Your task to perform on an android device: make emails show in primary in the gmail app Image 0: 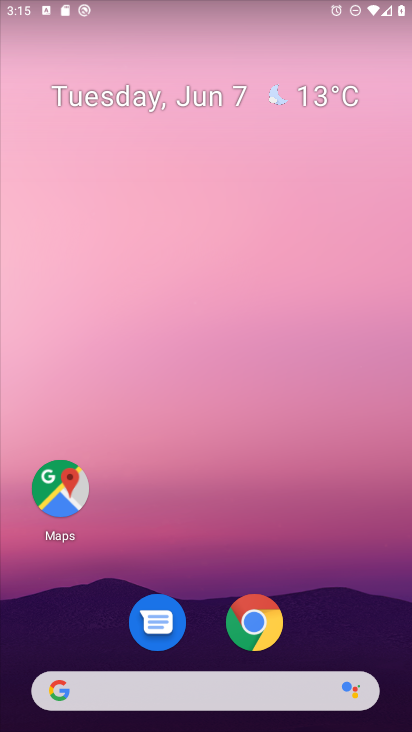
Step 0: drag from (352, 643) to (260, 129)
Your task to perform on an android device: make emails show in primary in the gmail app Image 1: 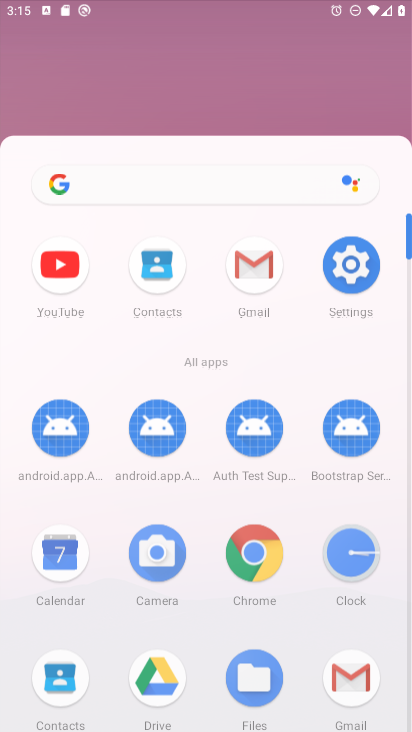
Step 1: drag from (299, 600) to (275, 20)
Your task to perform on an android device: make emails show in primary in the gmail app Image 2: 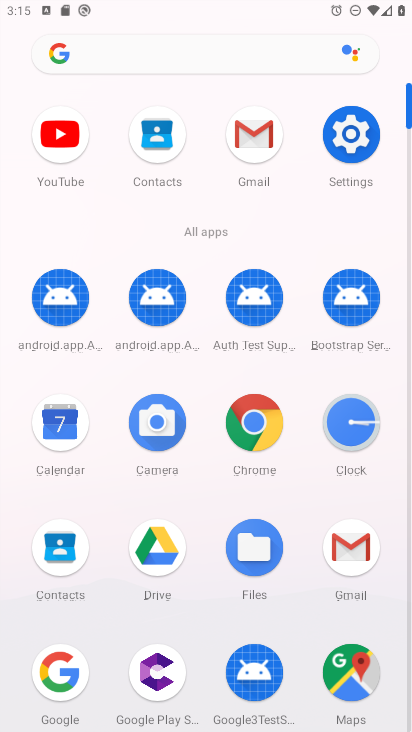
Step 2: click (257, 141)
Your task to perform on an android device: make emails show in primary in the gmail app Image 3: 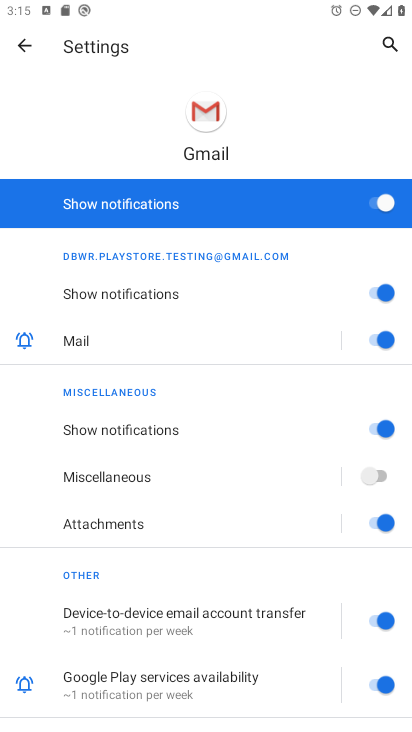
Step 3: click (23, 48)
Your task to perform on an android device: make emails show in primary in the gmail app Image 4: 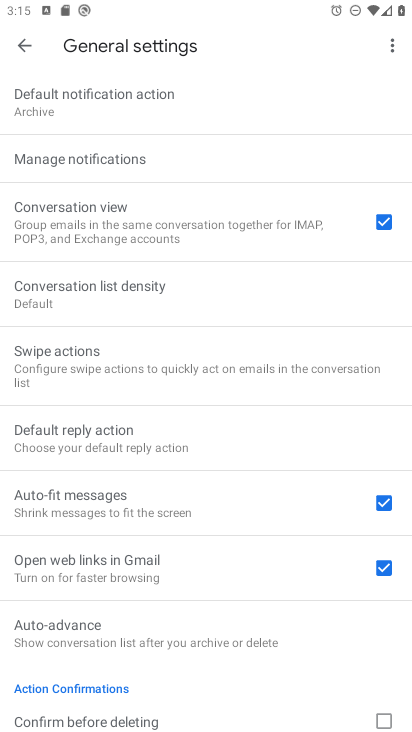
Step 4: click (29, 44)
Your task to perform on an android device: make emails show in primary in the gmail app Image 5: 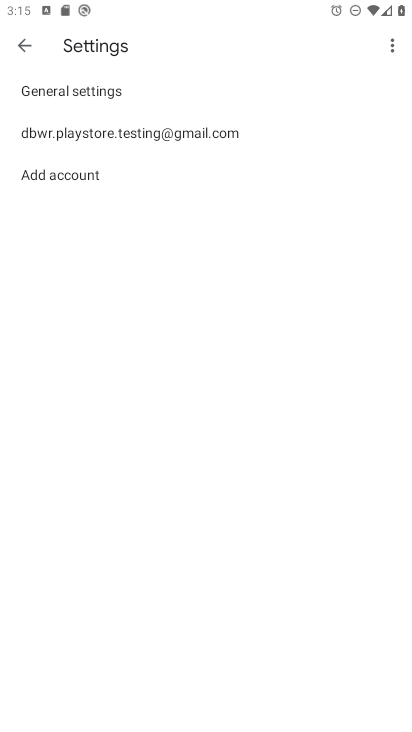
Step 5: click (71, 139)
Your task to perform on an android device: make emails show in primary in the gmail app Image 6: 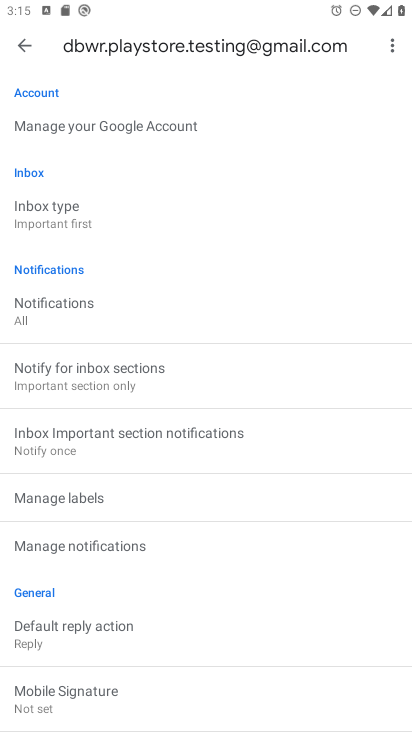
Step 6: click (75, 222)
Your task to perform on an android device: make emails show in primary in the gmail app Image 7: 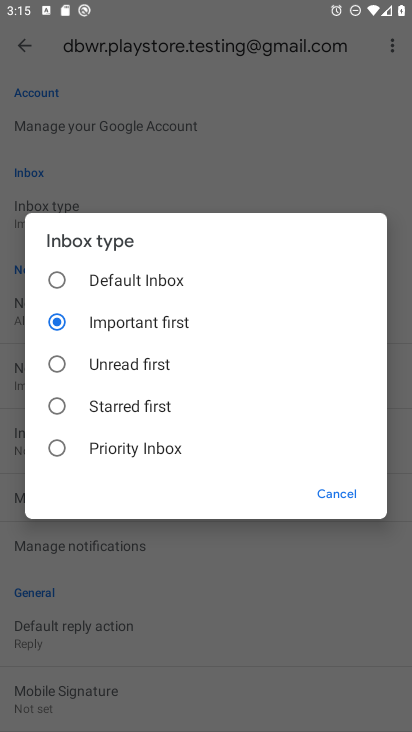
Step 7: click (59, 276)
Your task to perform on an android device: make emails show in primary in the gmail app Image 8: 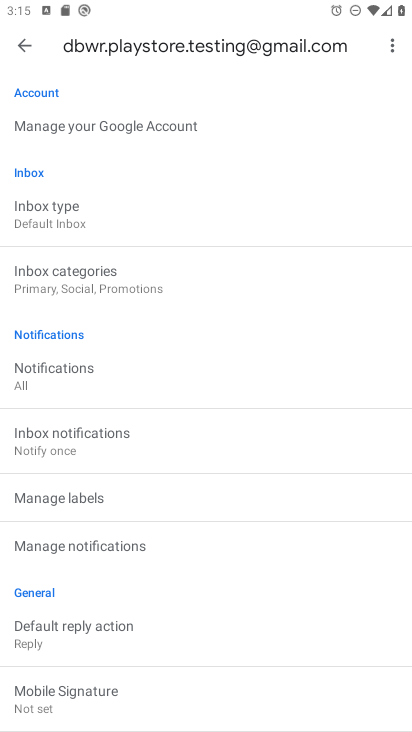
Step 8: click (93, 284)
Your task to perform on an android device: make emails show in primary in the gmail app Image 9: 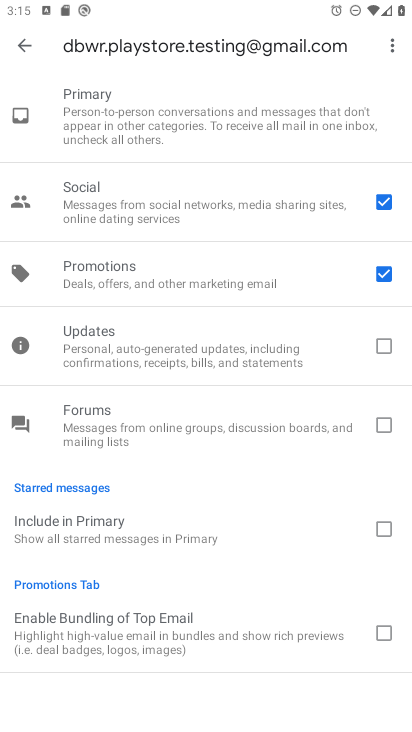
Step 9: click (381, 205)
Your task to perform on an android device: make emails show in primary in the gmail app Image 10: 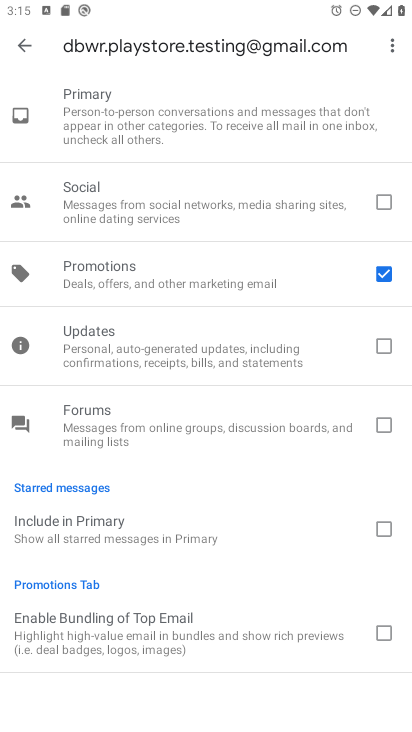
Step 10: click (384, 272)
Your task to perform on an android device: make emails show in primary in the gmail app Image 11: 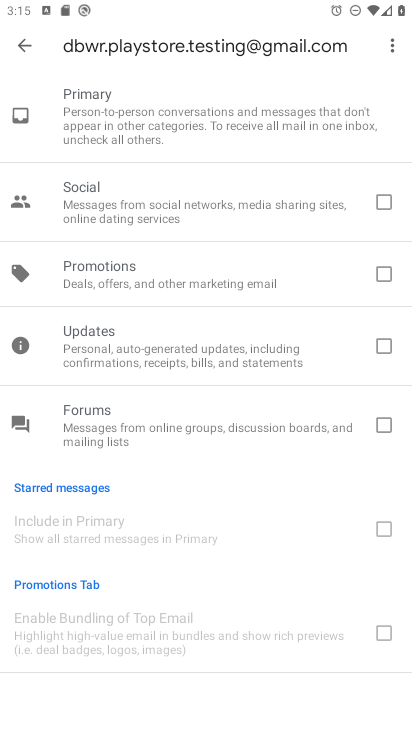
Step 11: task complete